Your task to perform on an android device: turn off priority inbox in the gmail app Image 0: 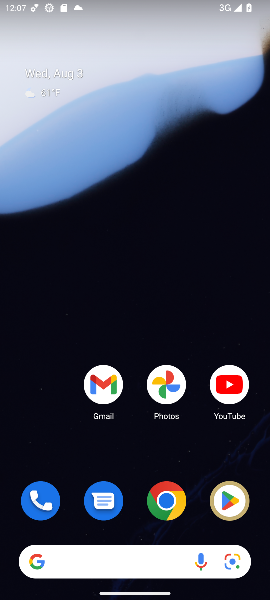
Step 0: click (105, 396)
Your task to perform on an android device: turn off priority inbox in the gmail app Image 1: 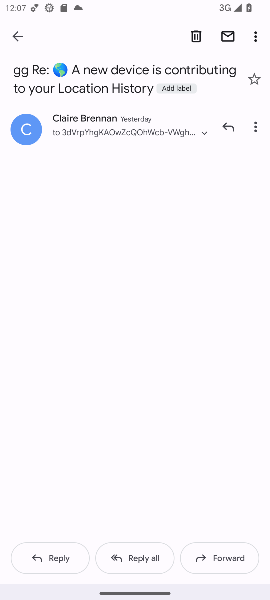
Step 1: click (18, 37)
Your task to perform on an android device: turn off priority inbox in the gmail app Image 2: 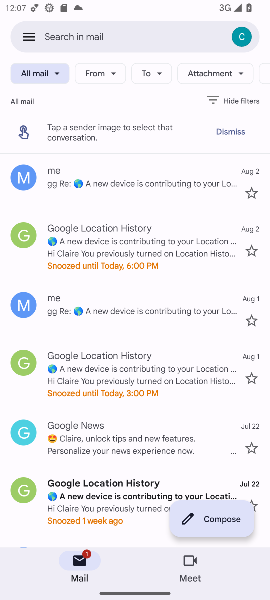
Step 2: click (27, 38)
Your task to perform on an android device: turn off priority inbox in the gmail app Image 3: 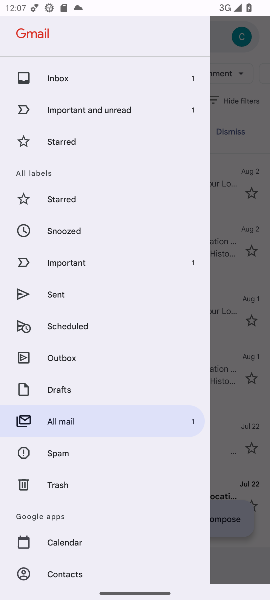
Step 3: drag from (79, 406) to (66, 72)
Your task to perform on an android device: turn off priority inbox in the gmail app Image 4: 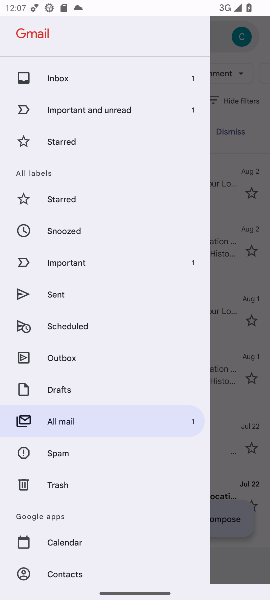
Step 4: drag from (67, 521) to (67, 367)
Your task to perform on an android device: turn off priority inbox in the gmail app Image 5: 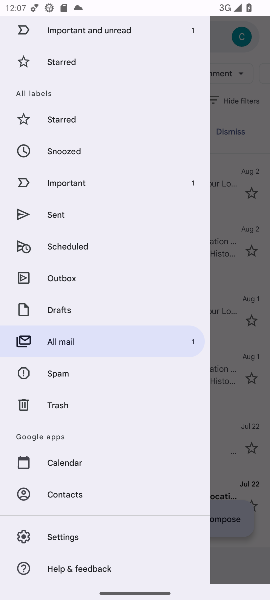
Step 5: click (70, 537)
Your task to perform on an android device: turn off priority inbox in the gmail app Image 6: 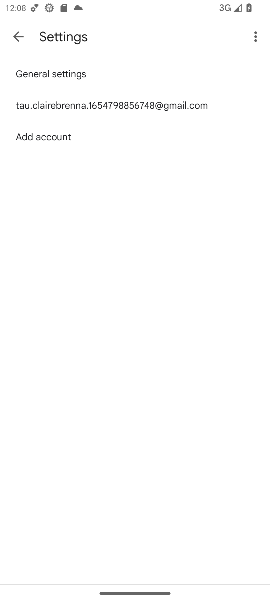
Step 6: click (154, 114)
Your task to perform on an android device: turn off priority inbox in the gmail app Image 7: 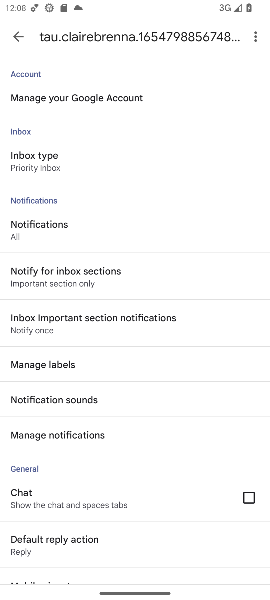
Step 7: click (24, 168)
Your task to perform on an android device: turn off priority inbox in the gmail app Image 8: 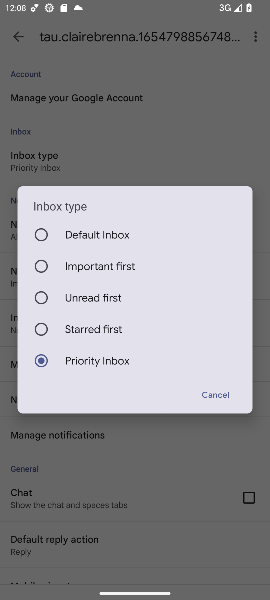
Step 8: click (96, 242)
Your task to perform on an android device: turn off priority inbox in the gmail app Image 9: 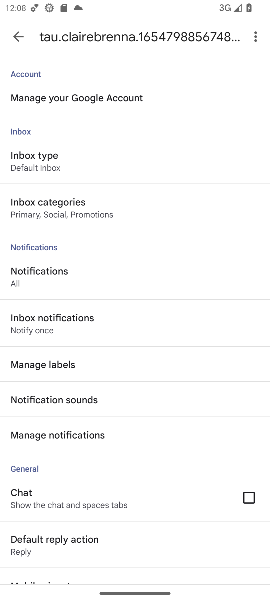
Step 9: task complete